Your task to perform on an android device: show emergency info Image 0: 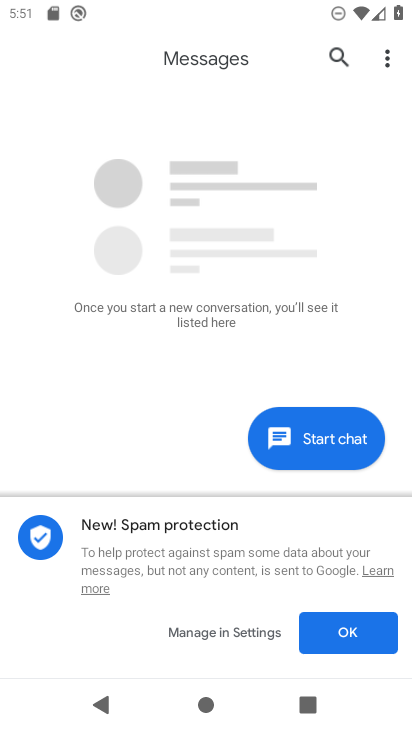
Step 0: press home button
Your task to perform on an android device: show emergency info Image 1: 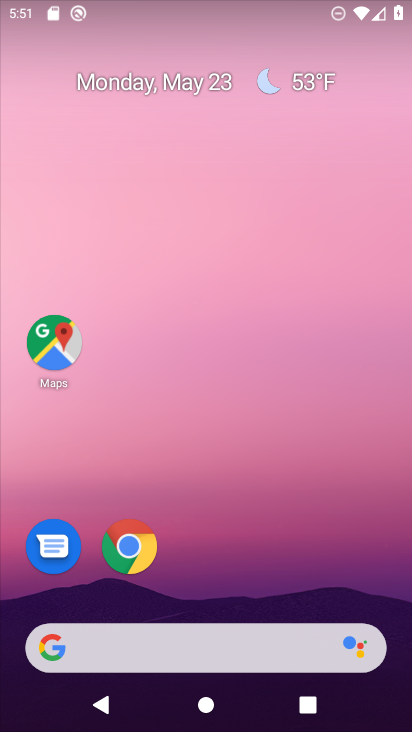
Step 1: drag from (242, 583) to (274, 130)
Your task to perform on an android device: show emergency info Image 2: 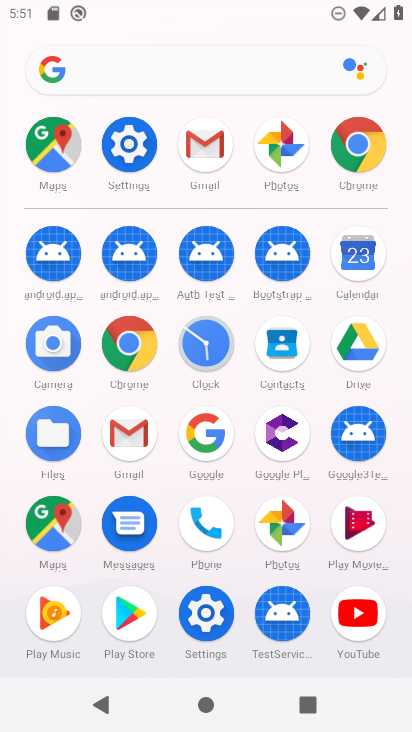
Step 2: click (121, 135)
Your task to perform on an android device: show emergency info Image 3: 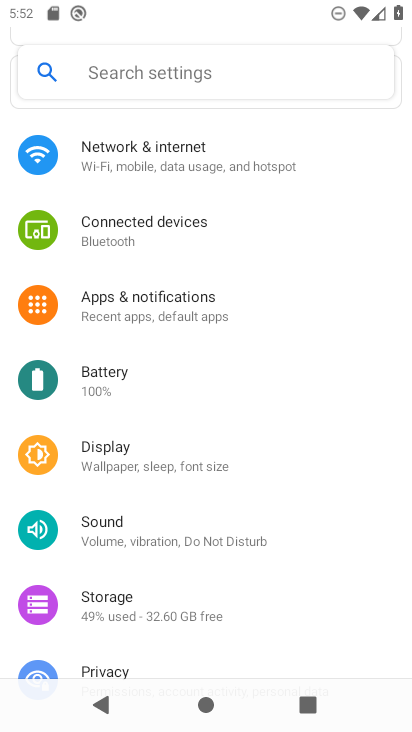
Step 3: drag from (215, 519) to (239, 71)
Your task to perform on an android device: show emergency info Image 4: 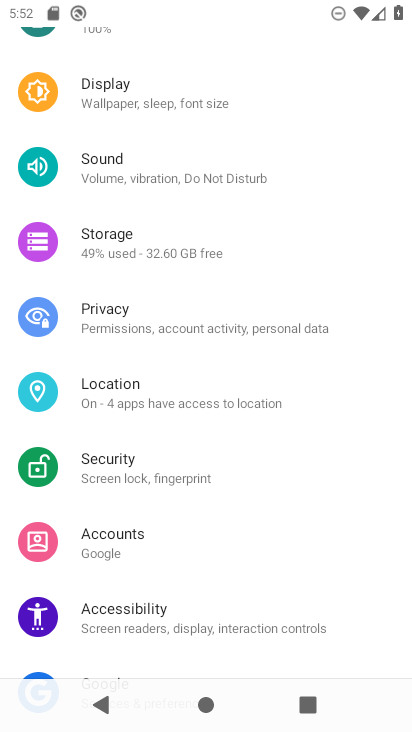
Step 4: drag from (247, 605) to (258, 295)
Your task to perform on an android device: show emergency info Image 5: 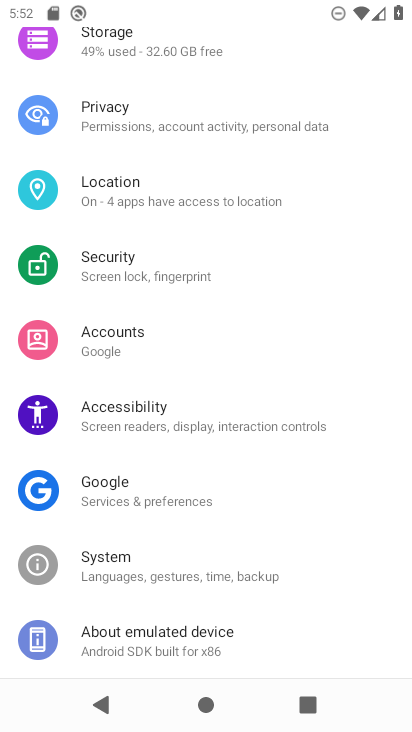
Step 5: click (214, 636)
Your task to perform on an android device: show emergency info Image 6: 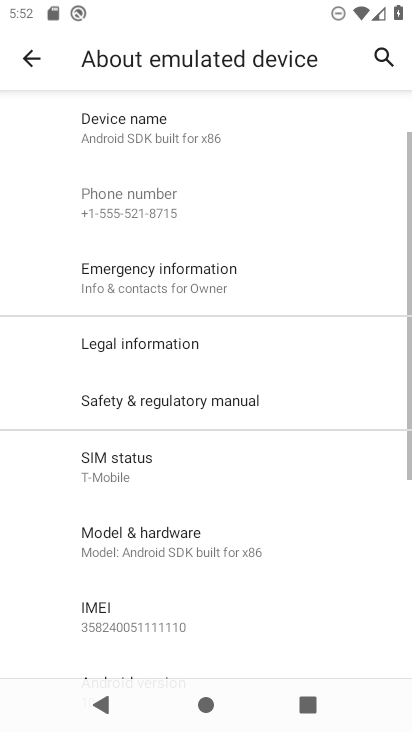
Step 6: click (209, 274)
Your task to perform on an android device: show emergency info Image 7: 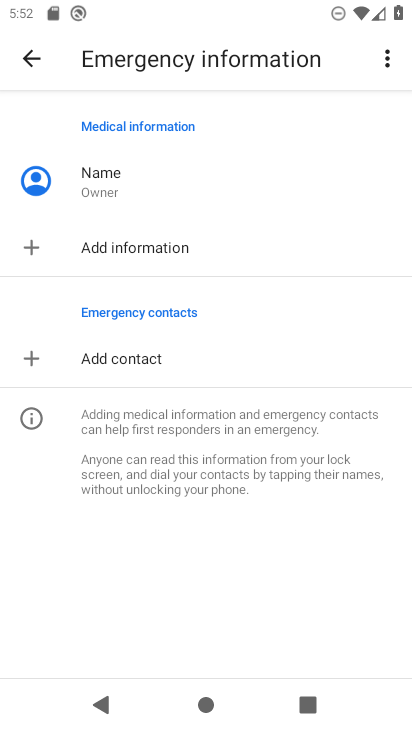
Step 7: task complete